Your task to perform on an android device: Search for Italian restaurants on Maps Image 0: 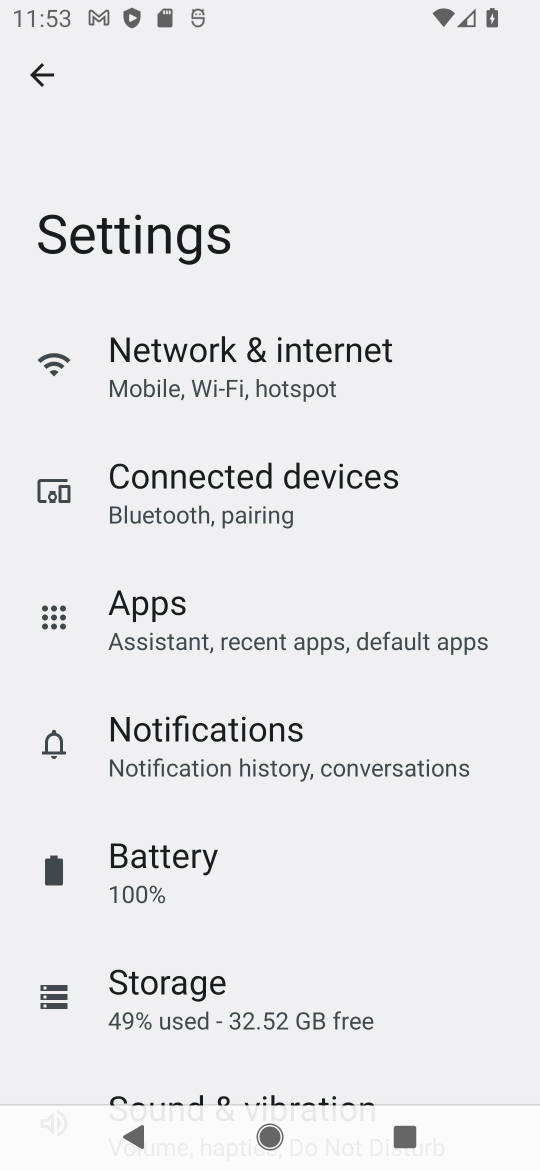
Step 0: press back button
Your task to perform on an android device: Search for Italian restaurants on Maps Image 1: 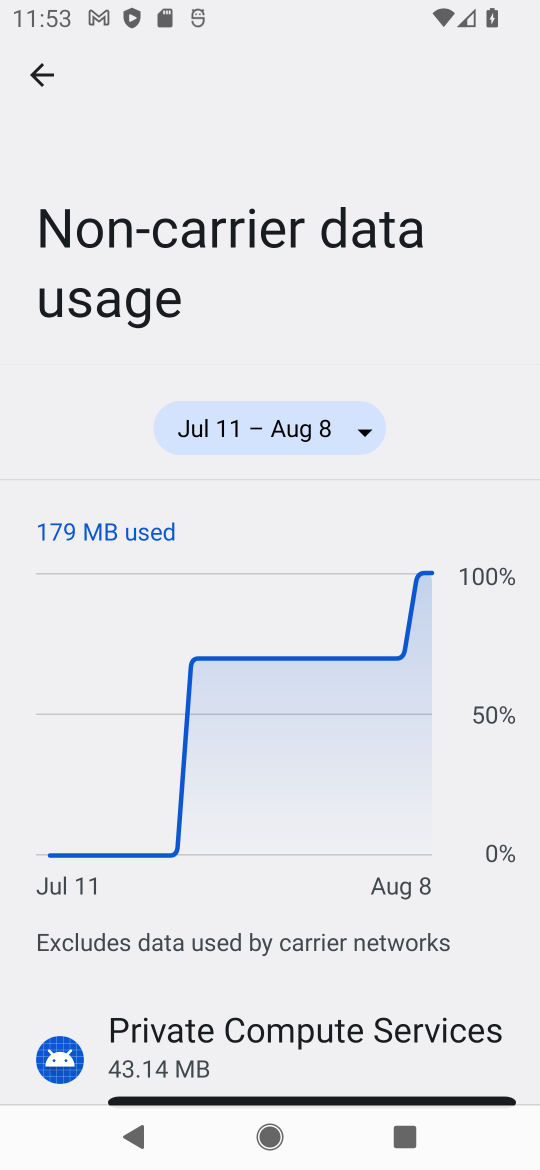
Step 1: press back button
Your task to perform on an android device: Search for Italian restaurants on Maps Image 2: 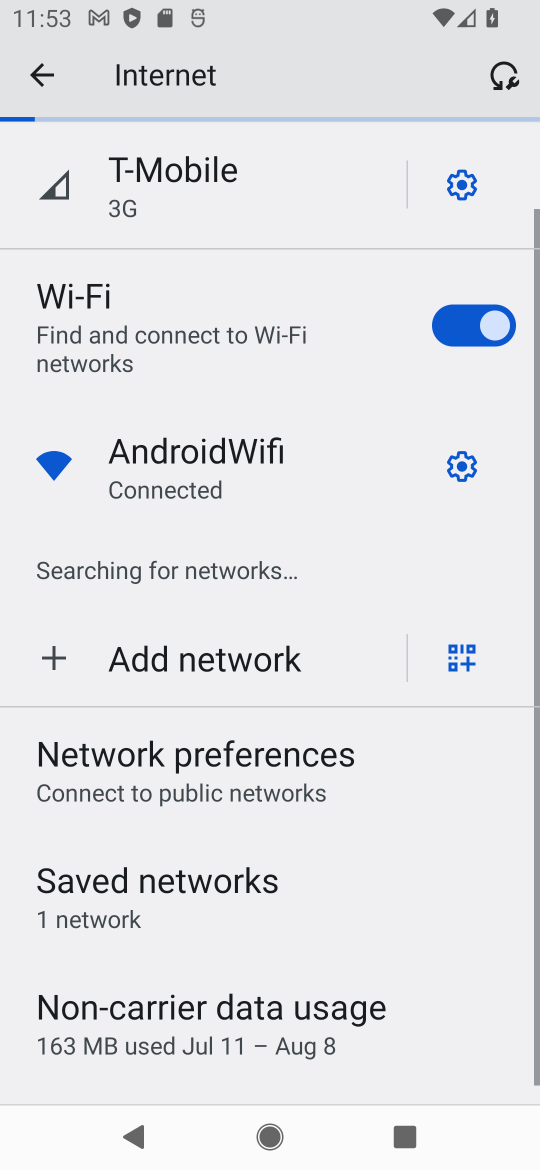
Step 2: press back button
Your task to perform on an android device: Search for Italian restaurants on Maps Image 3: 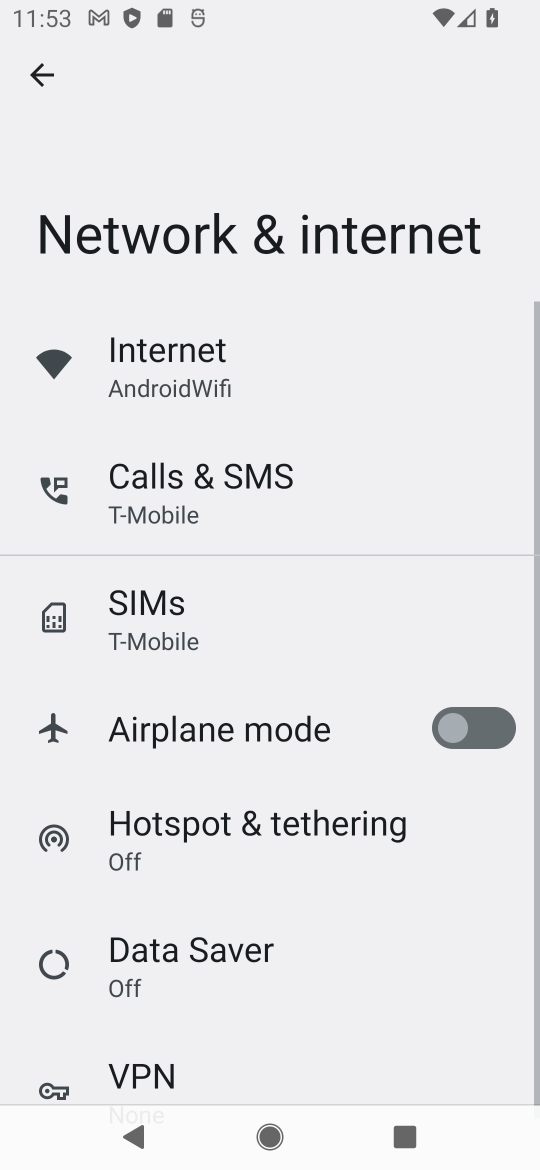
Step 3: click (40, 74)
Your task to perform on an android device: Search for Italian restaurants on Maps Image 4: 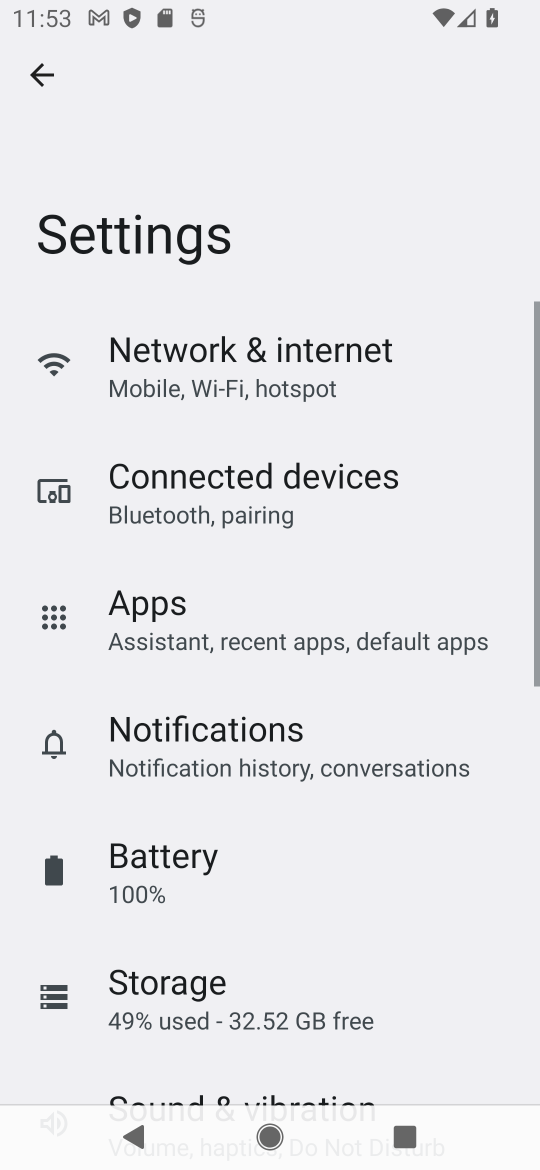
Step 4: click (55, 64)
Your task to perform on an android device: Search for Italian restaurants on Maps Image 5: 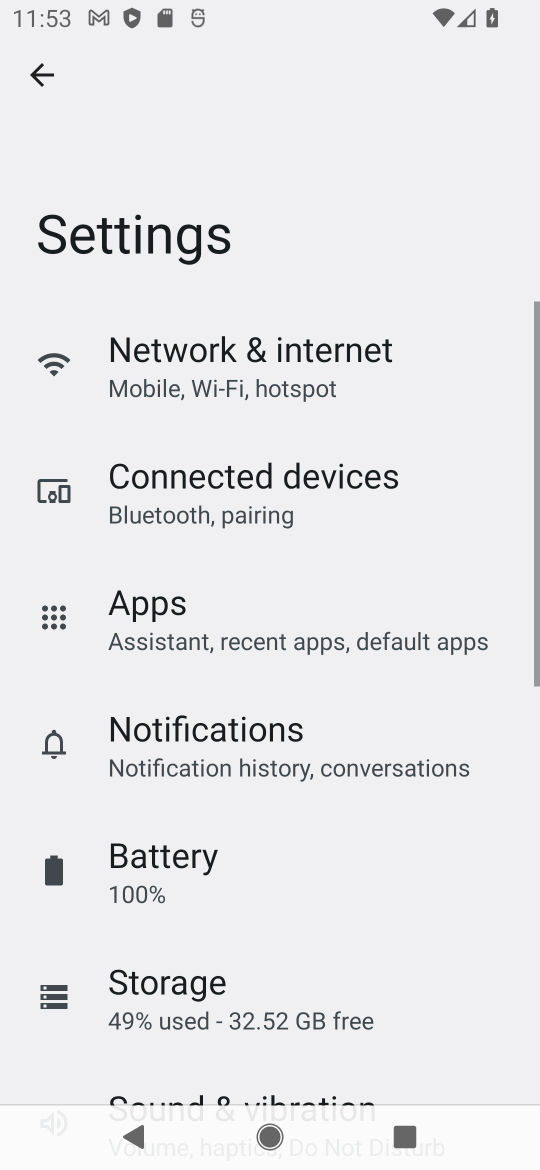
Step 5: drag from (318, 507) to (183, 1109)
Your task to perform on an android device: Search for Italian restaurants on Maps Image 6: 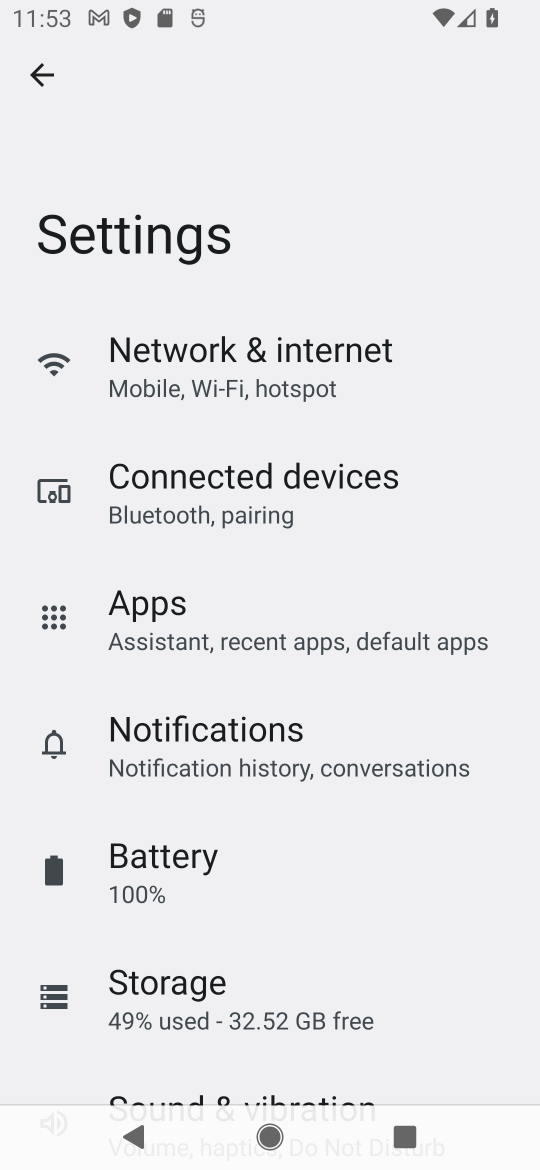
Step 6: click (35, 59)
Your task to perform on an android device: Search for Italian restaurants on Maps Image 7: 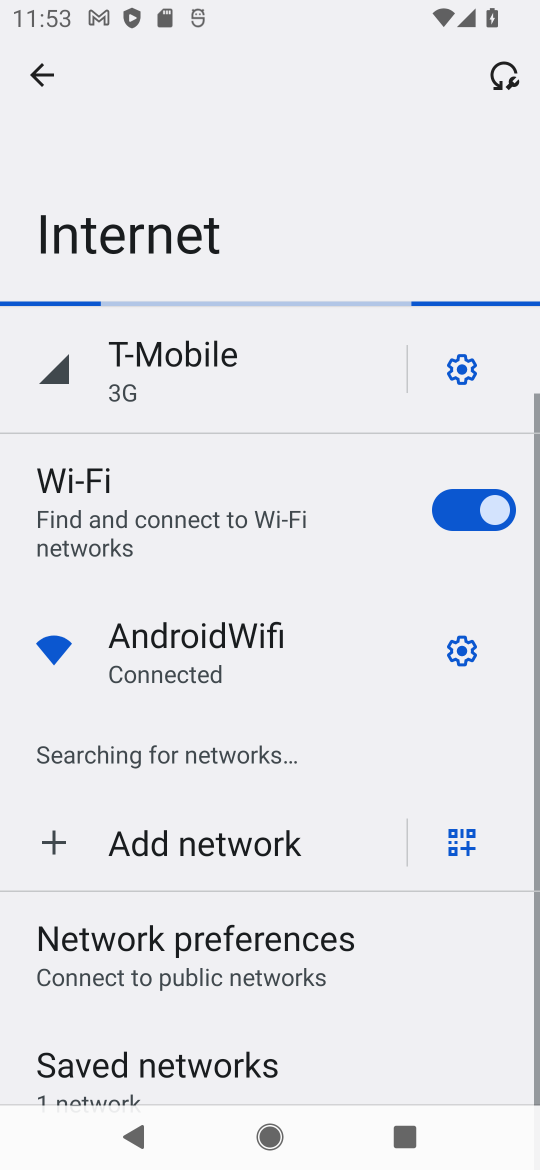
Step 7: click (35, 59)
Your task to perform on an android device: Search for Italian restaurants on Maps Image 8: 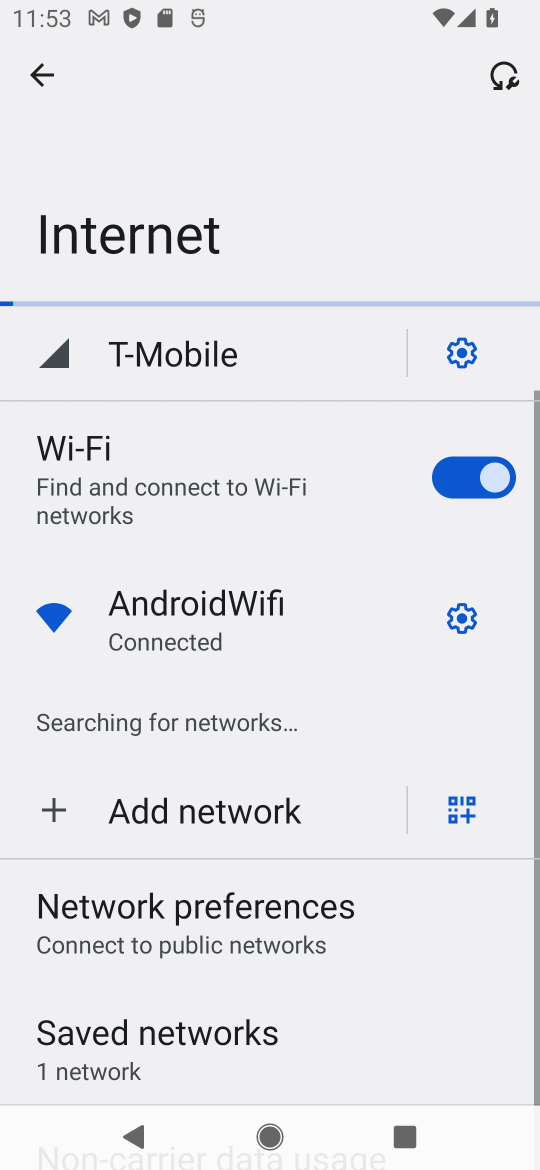
Step 8: press back button
Your task to perform on an android device: Search for Italian restaurants on Maps Image 9: 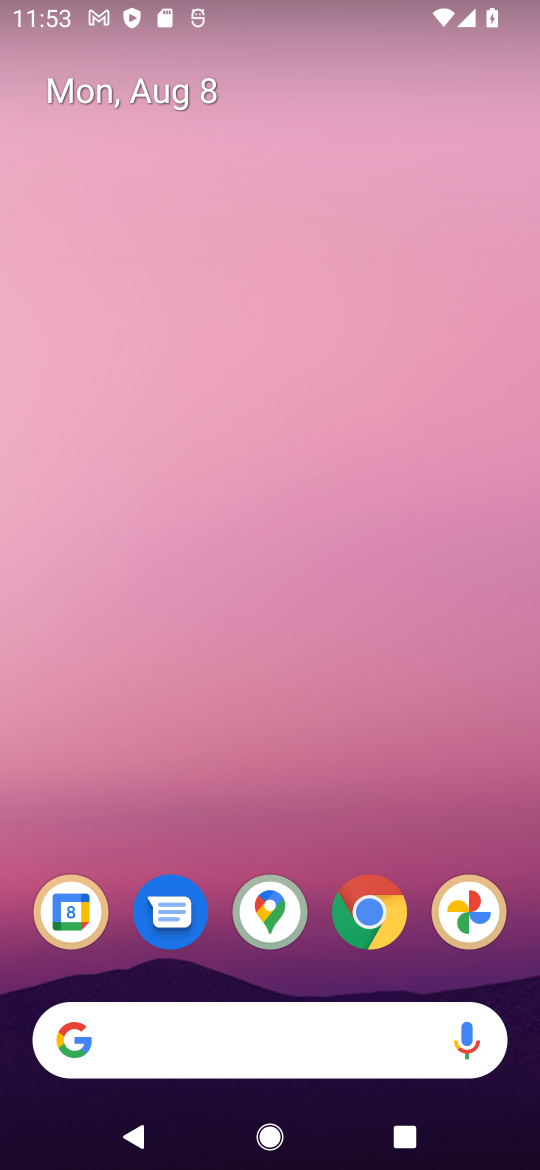
Step 9: press back button
Your task to perform on an android device: Search for Italian restaurants on Maps Image 10: 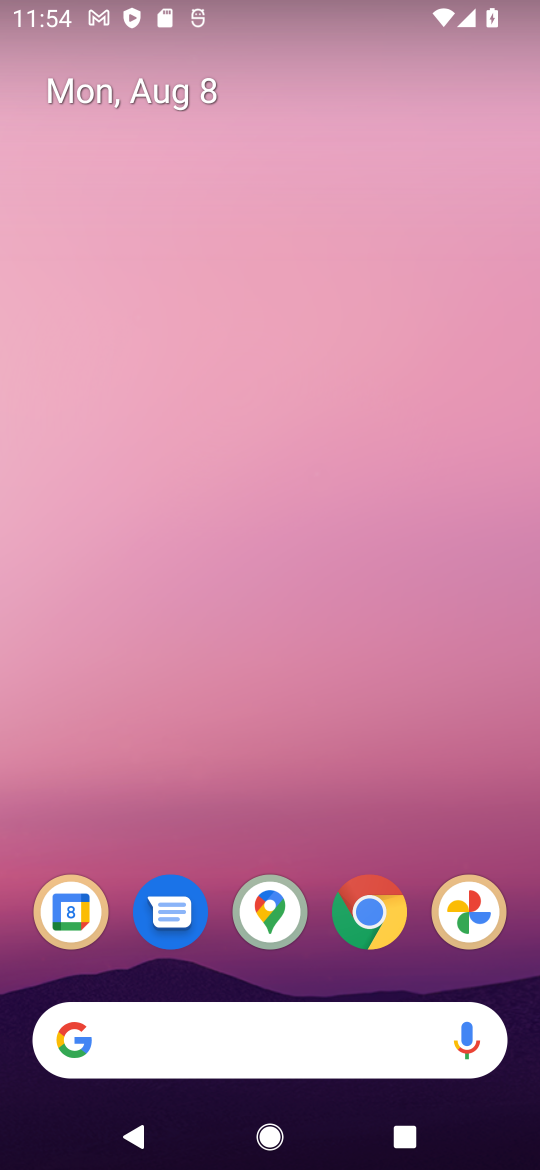
Step 10: click (270, 909)
Your task to perform on an android device: Search for Italian restaurants on Maps Image 11: 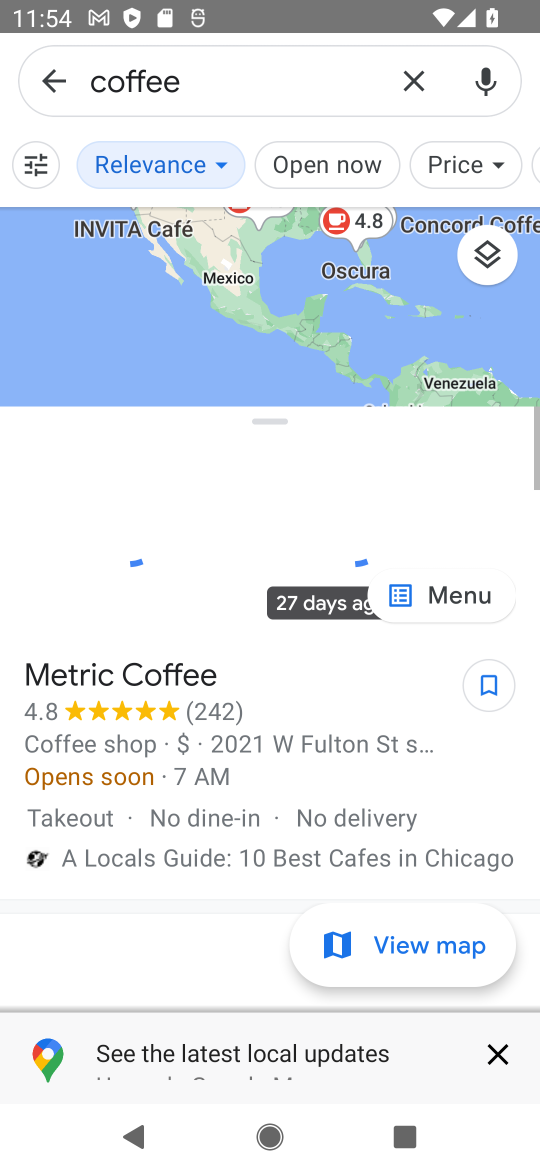
Step 11: click (422, 83)
Your task to perform on an android device: Search for Italian restaurants on Maps Image 12: 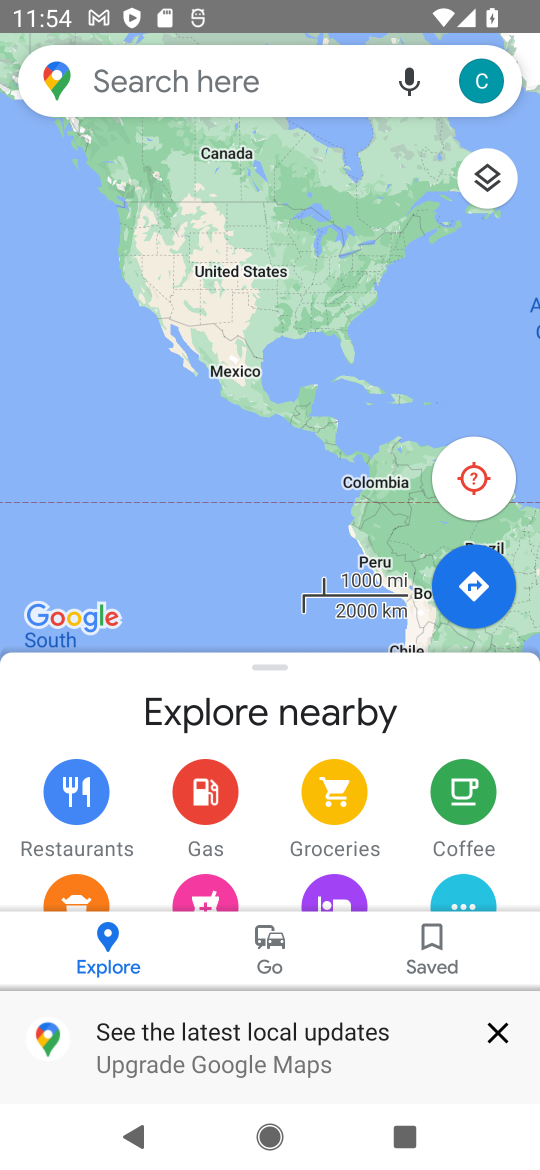
Step 12: click (224, 76)
Your task to perform on an android device: Search for Italian restaurants on Maps Image 13: 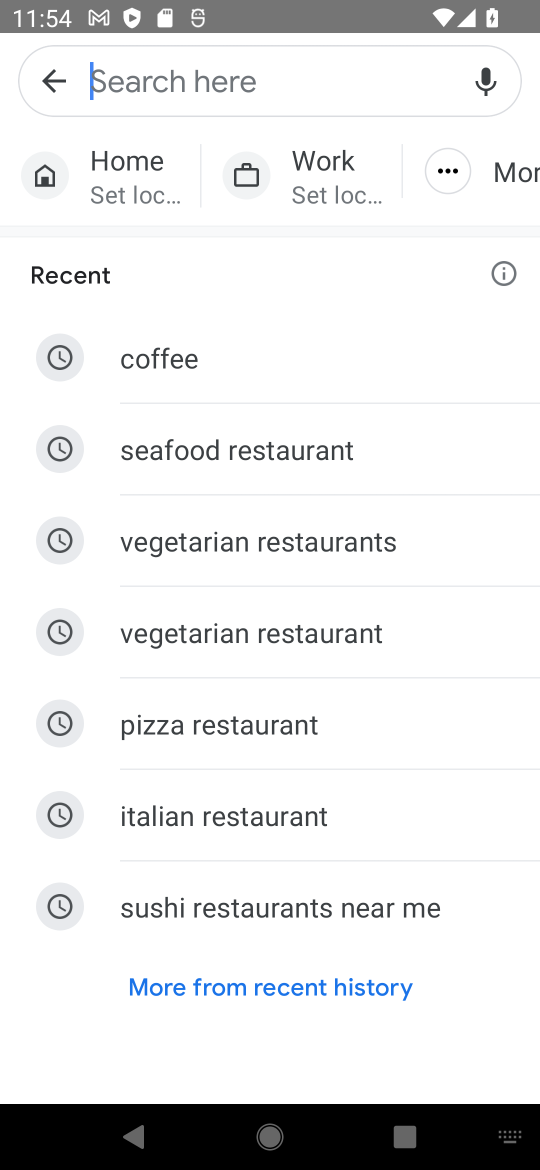
Step 13: click (198, 827)
Your task to perform on an android device: Search for Italian restaurants on Maps Image 14: 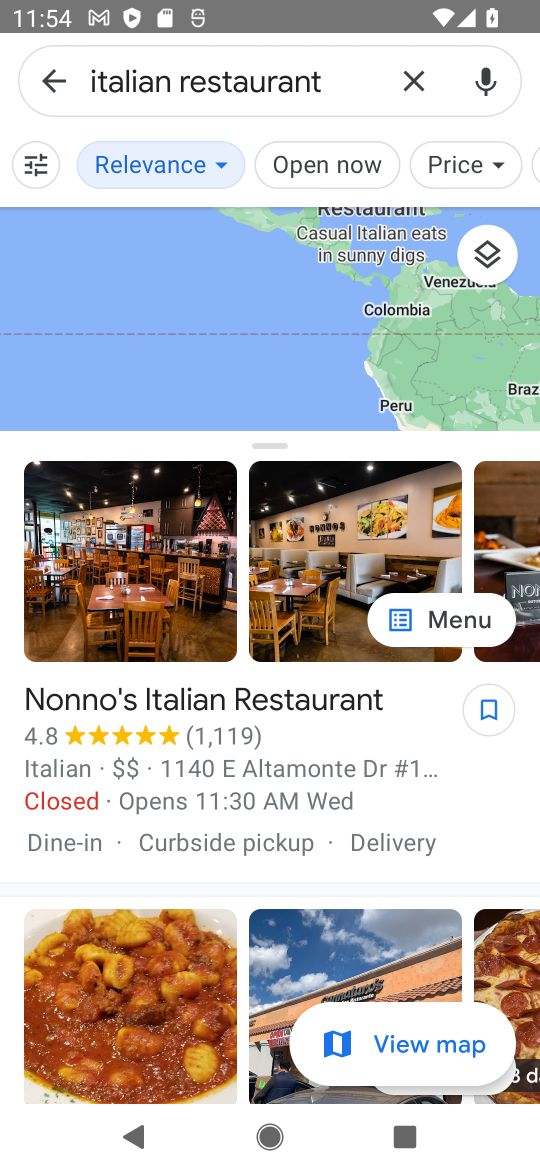
Step 14: task complete